Your task to perform on an android device: change the clock style Image 0: 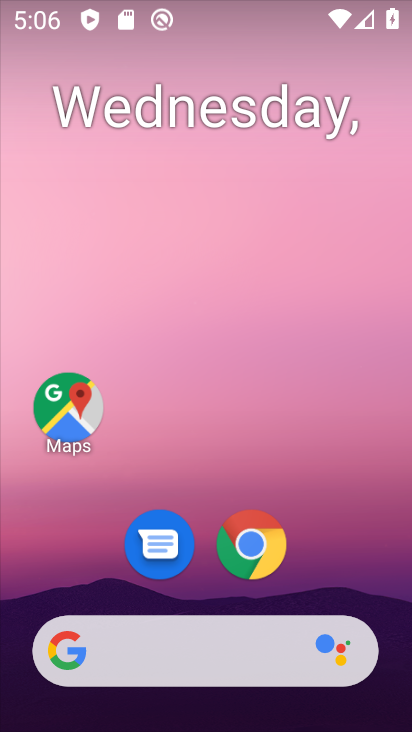
Step 0: drag from (373, 663) to (323, 154)
Your task to perform on an android device: change the clock style Image 1: 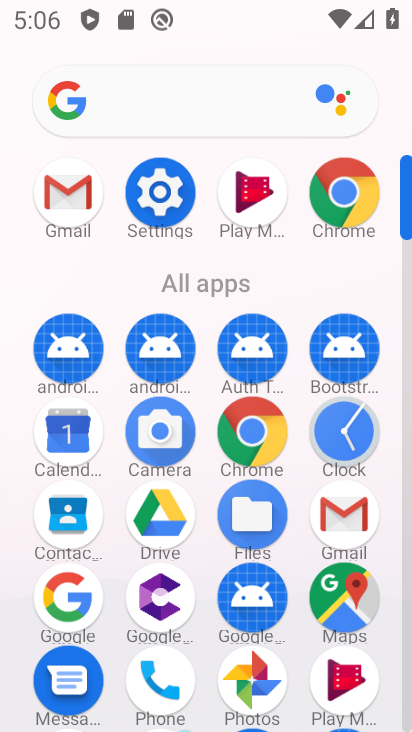
Step 1: click (336, 433)
Your task to perform on an android device: change the clock style Image 2: 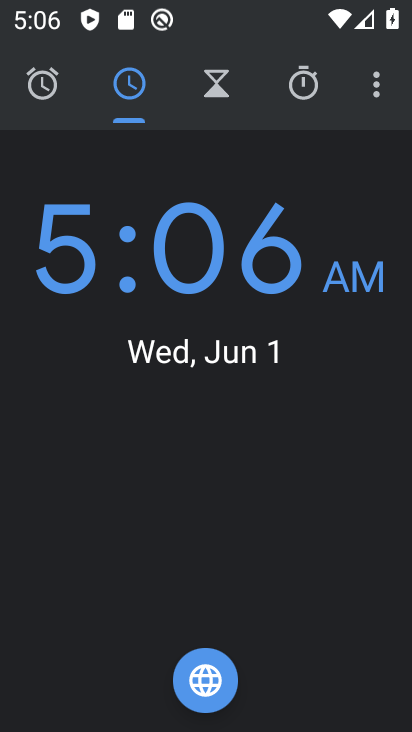
Step 2: click (370, 89)
Your task to perform on an android device: change the clock style Image 3: 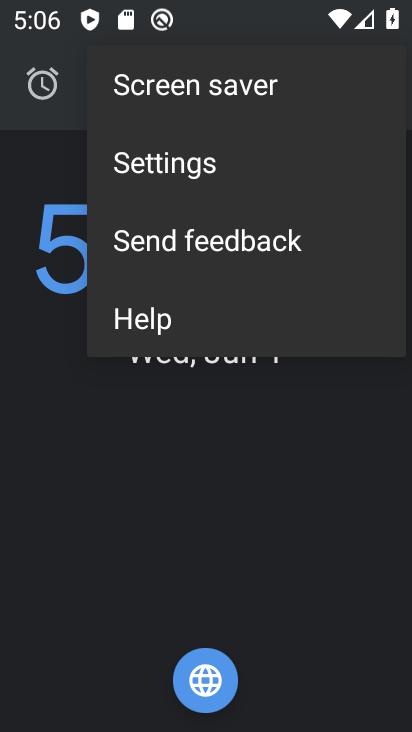
Step 3: click (157, 150)
Your task to perform on an android device: change the clock style Image 4: 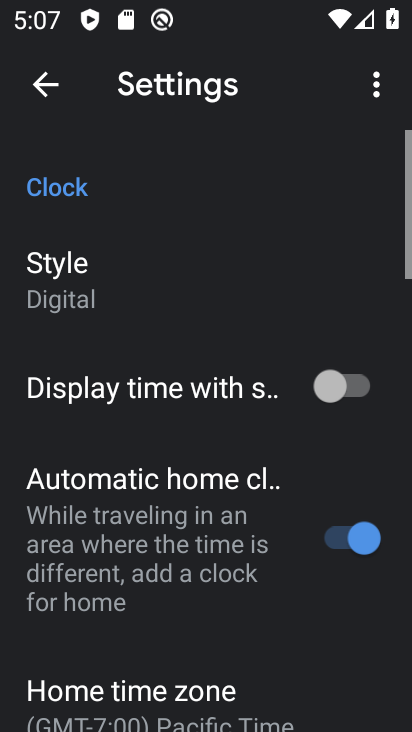
Step 4: click (69, 284)
Your task to perform on an android device: change the clock style Image 5: 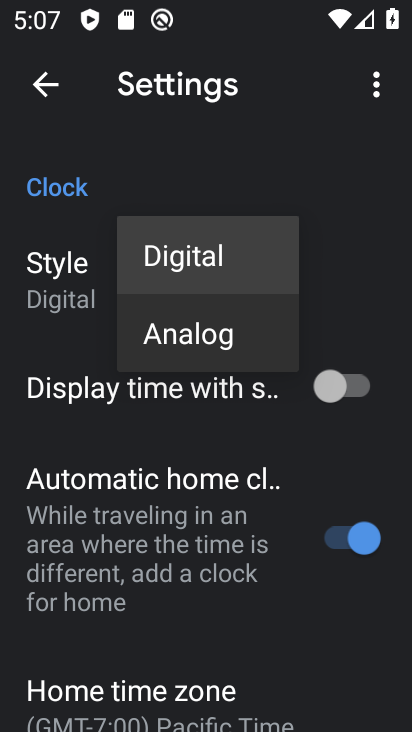
Step 5: click (218, 338)
Your task to perform on an android device: change the clock style Image 6: 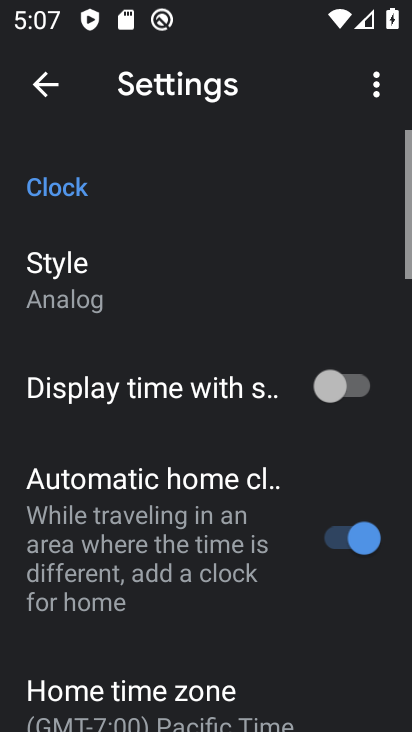
Step 6: task complete